Your task to perform on an android device: Open Google Maps Image 0: 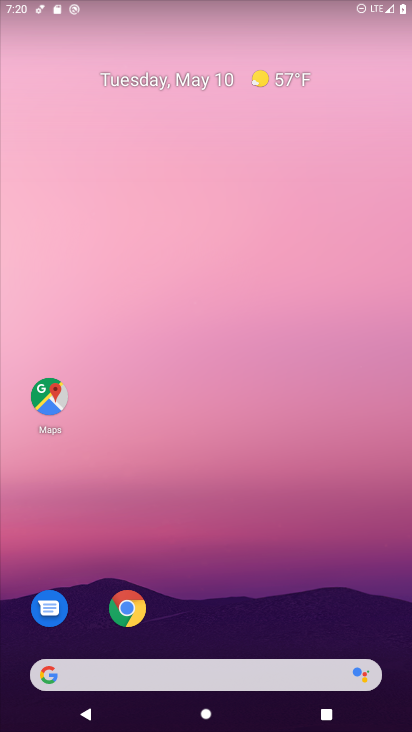
Step 0: drag from (295, 620) to (245, 7)
Your task to perform on an android device: Open Google Maps Image 1: 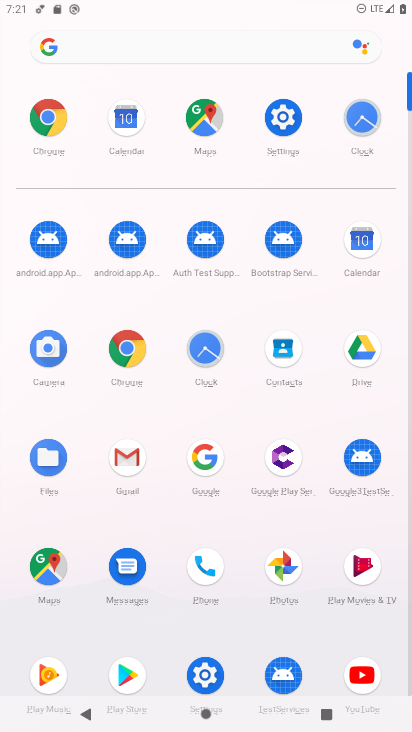
Step 1: click (50, 587)
Your task to perform on an android device: Open Google Maps Image 2: 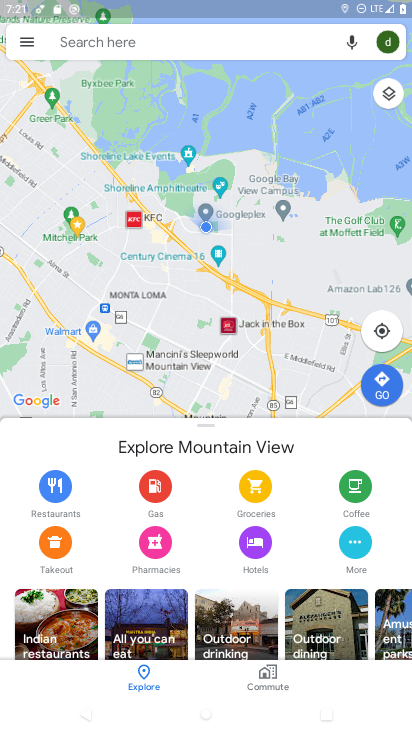
Step 2: task complete